Your task to perform on an android device: Open calendar and show me the first week of next month Image 0: 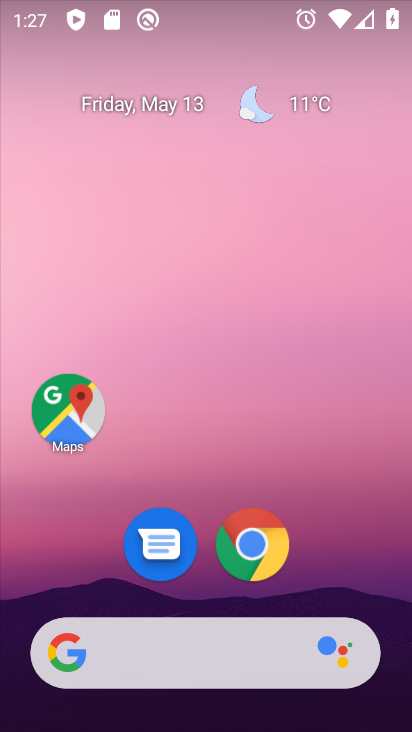
Step 0: drag from (198, 580) to (206, 193)
Your task to perform on an android device: Open calendar and show me the first week of next month Image 1: 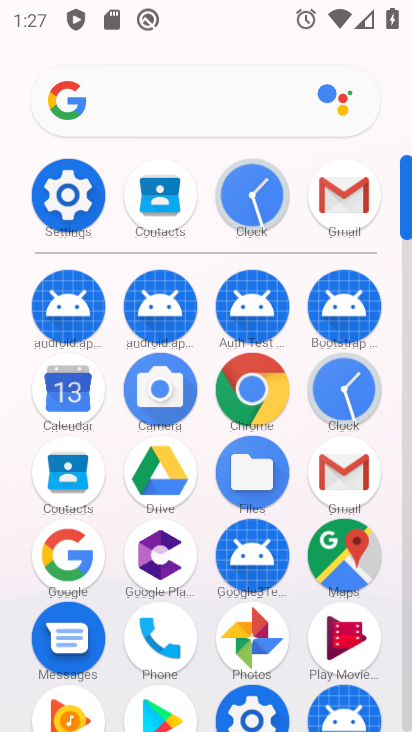
Step 1: click (68, 388)
Your task to perform on an android device: Open calendar and show me the first week of next month Image 2: 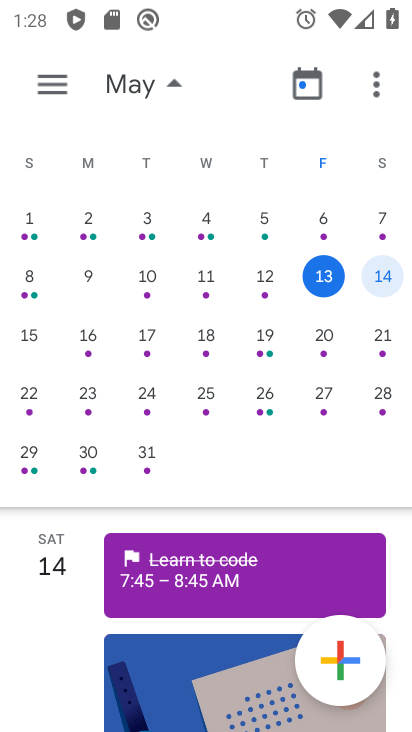
Step 2: drag from (401, 373) to (90, 394)
Your task to perform on an android device: Open calendar and show me the first week of next month Image 3: 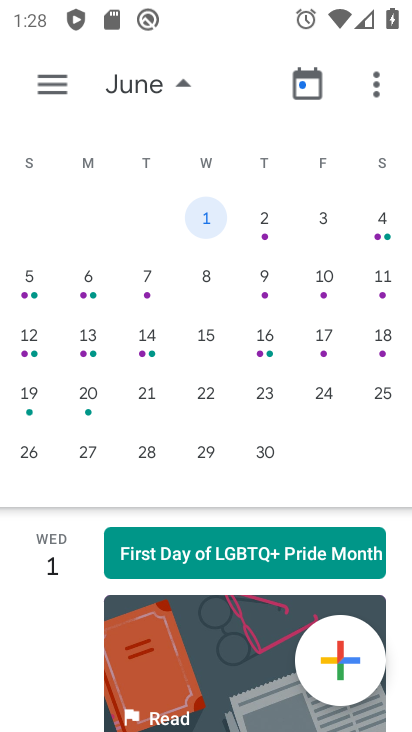
Step 3: click (255, 221)
Your task to perform on an android device: Open calendar and show me the first week of next month Image 4: 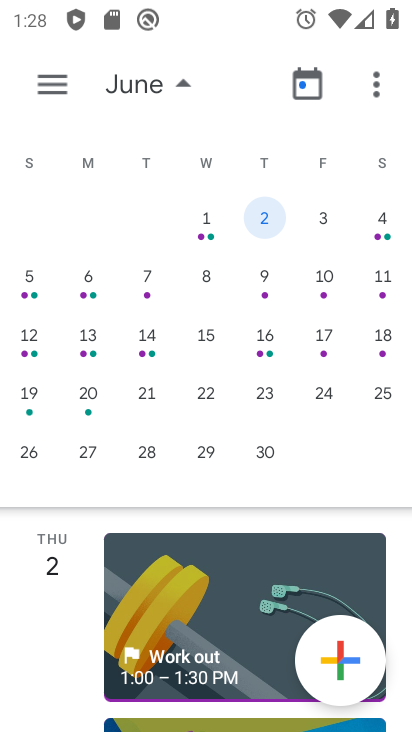
Step 4: click (39, 92)
Your task to perform on an android device: Open calendar and show me the first week of next month Image 5: 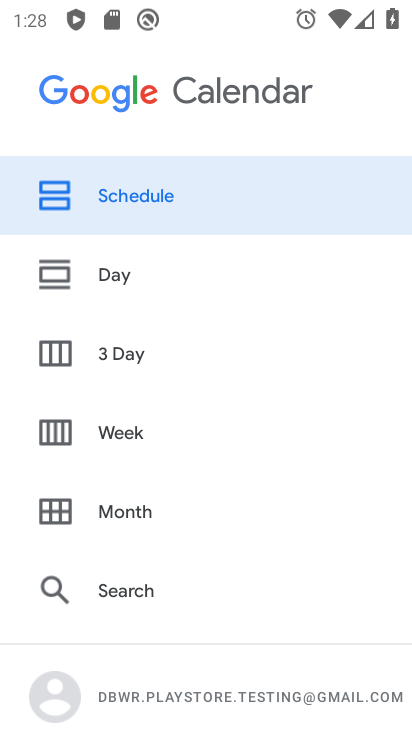
Step 5: click (113, 426)
Your task to perform on an android device: Open calendar and show me the first week of next month Image 6: 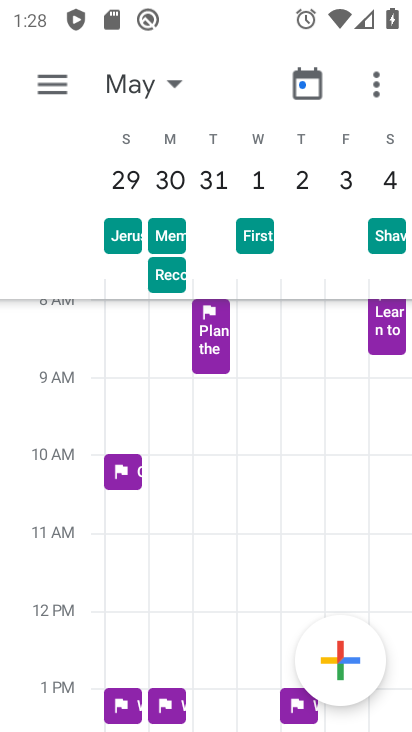
Step 6: task complete